Your task to perform on an android device: Open Google Maps Image 0: 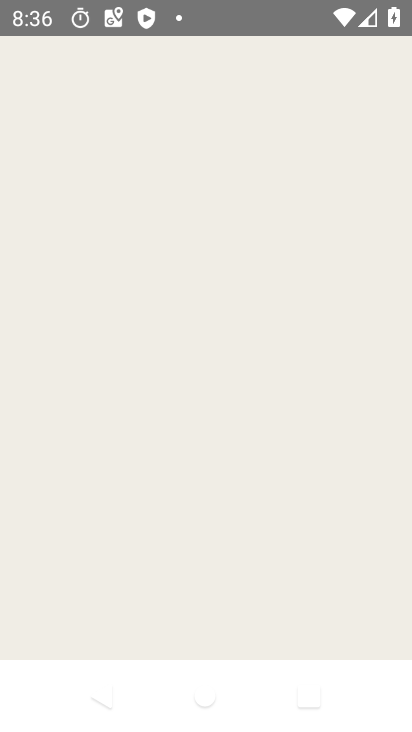
Step 0: press home button
Your task to perform on an android device: Open Google Maps Image 1: 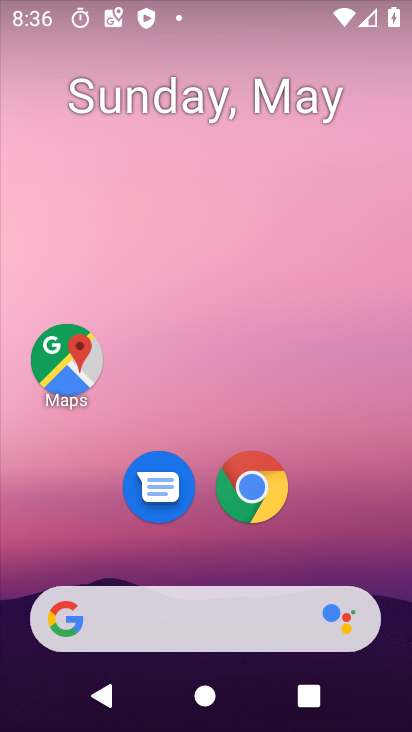
Step 1: drag from (63, 460) to (163, 196)
Your task to perform on an android device: Open Google Maps Image 2: 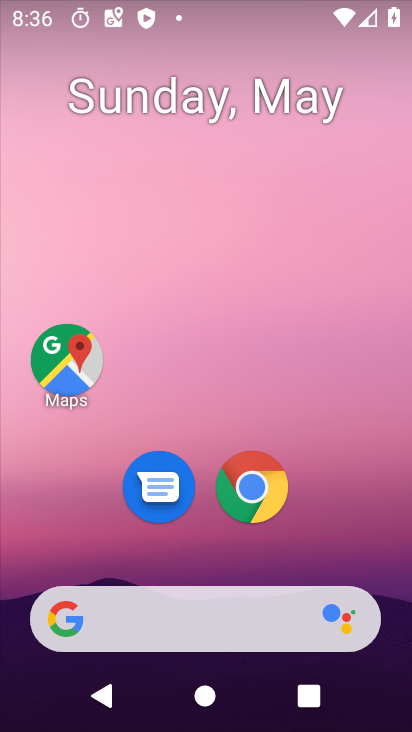
Step 2: drag from (64, 270) to (97, 175)
Your task to perform on an android device: Open Google Maps Image 3: 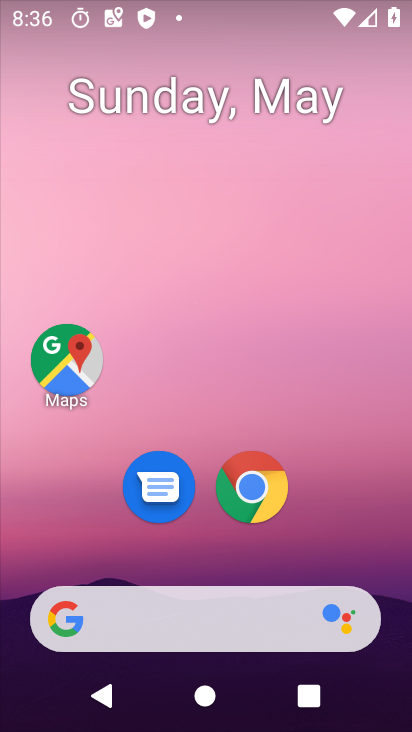
Step 3: drag from (27, 585) to (192, 181)
Your task to perform on an android device: Open Google Maps Image 4: 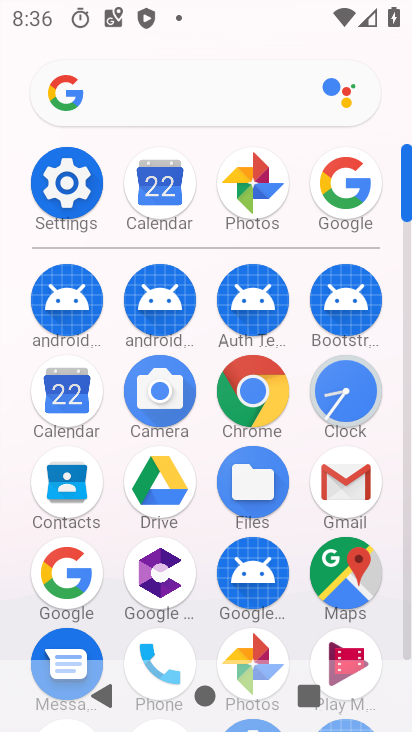
Step 4: click (61, 191)
Your task to perform on an android device: Open Google Maps Image 5: 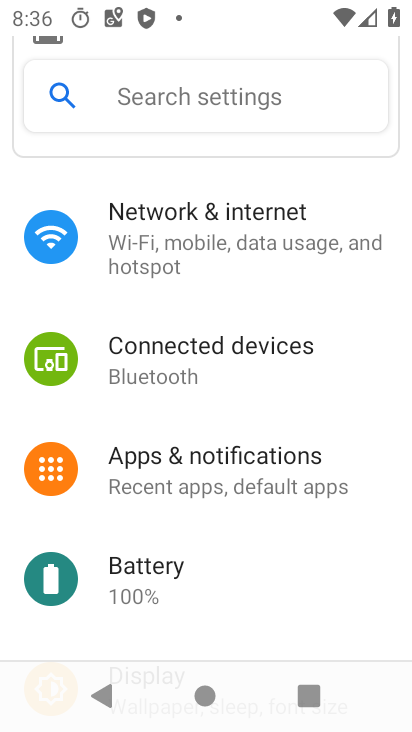
Step 5: press home button
Your task to perform on an android device: Open Google Maps Image 6: 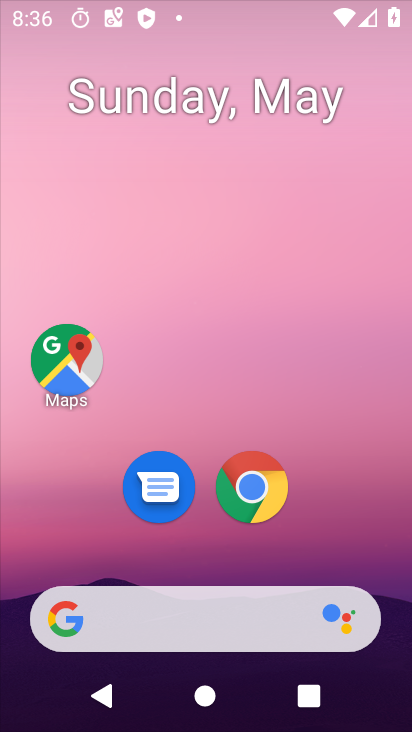
Step 6: click (56, 358)
Your task to perform on an android device: Open Google Maps Image 7: 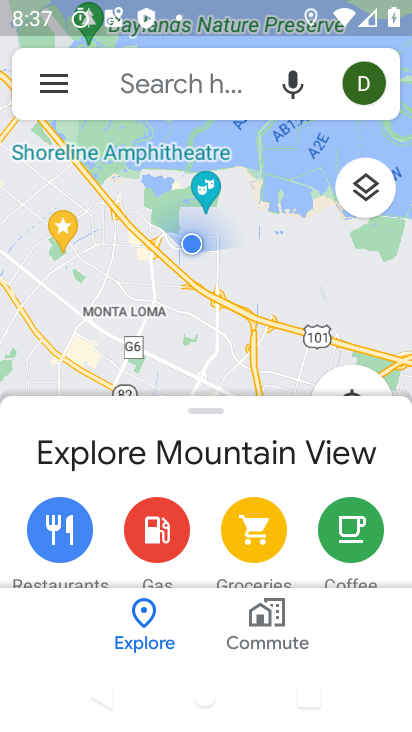
Step 7: press home button
Your task to perform on an android device: Open Google Maps Image 8: 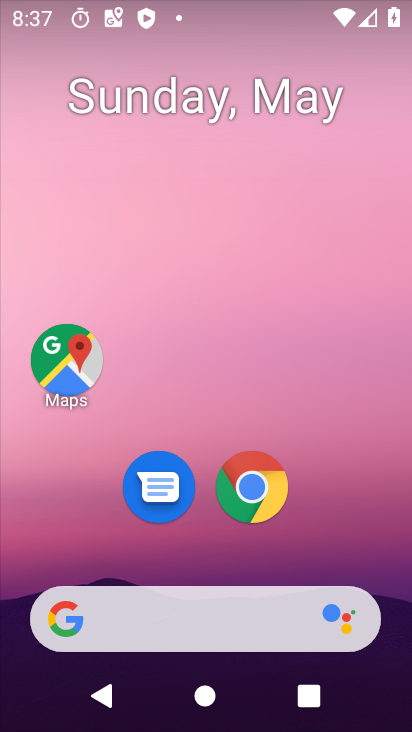
Step 8: click (56, 355)
Your task to perform on an android device: Open Google Maps Image 9: 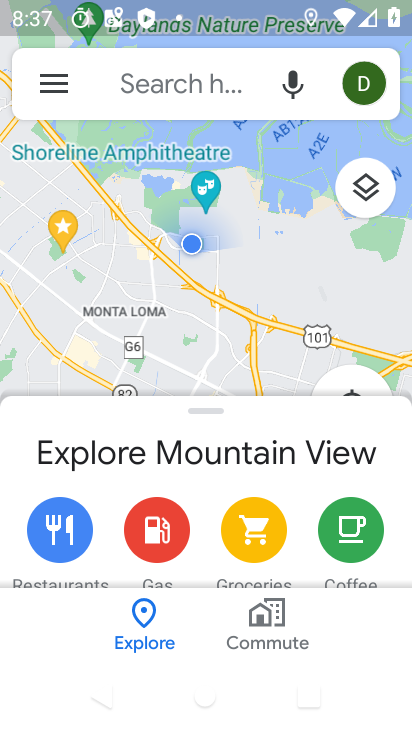
Step 9: task complete